Your task to perform on an android device: Go to Yahoo.com Image 0: 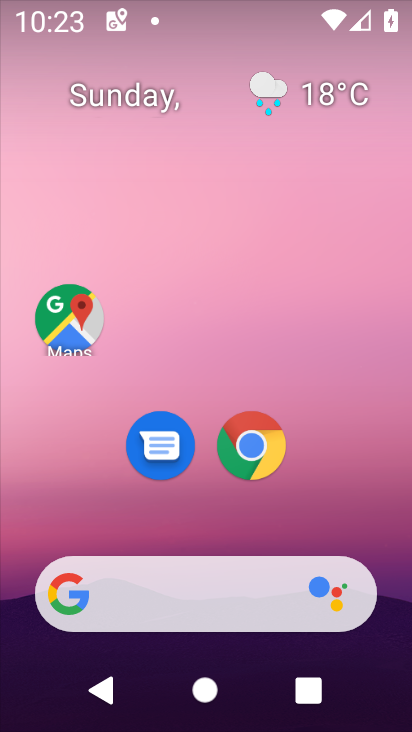
Step 0: click (248, 441)
Your task to perform on an android device: Go to Yahoo.com Image 1: 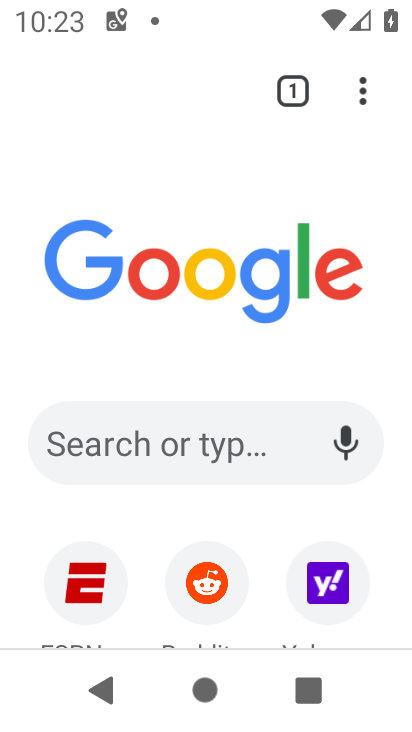
Step 1: drag from (261, 533) to (284, 110)
Your task to perform on an android device: Go to Yahoo.com Image 2: 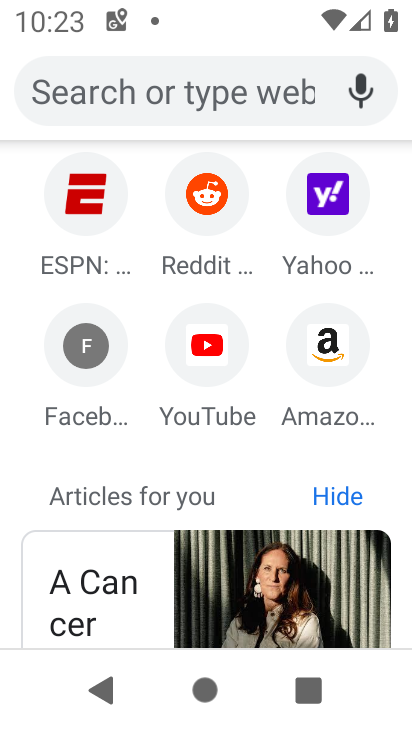
Step 2: click (317, 187)
Your task to perform on an android device: Go to Yahoo.com Image 3: 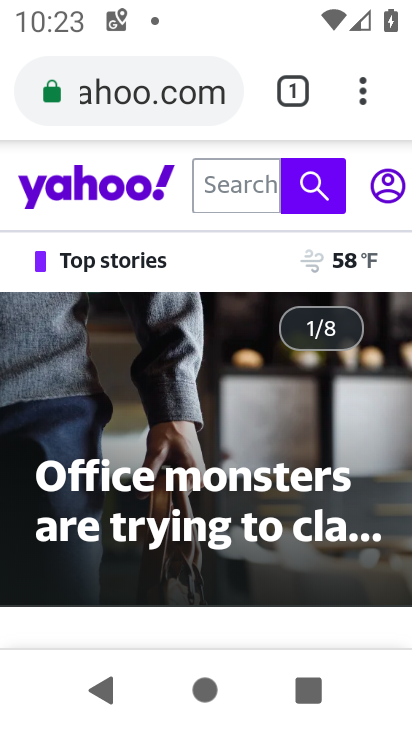
Step 3: task complete